Your task to perform on an android device: Go to Google Image 0: 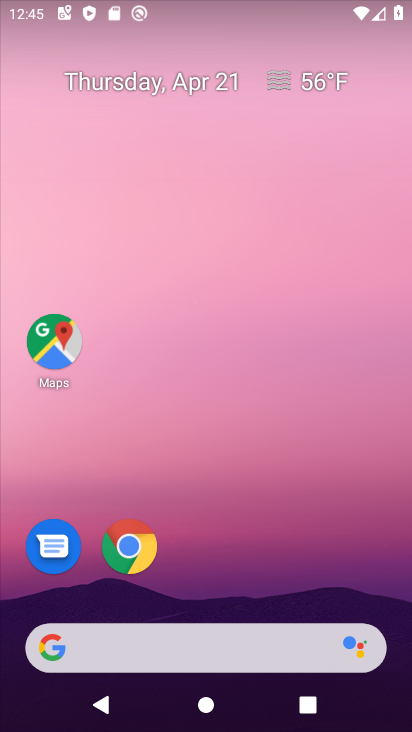
Step 0: drag from (192, 638) to (303, 193)
Your task to perform on an android device: Go to Google Image 1: 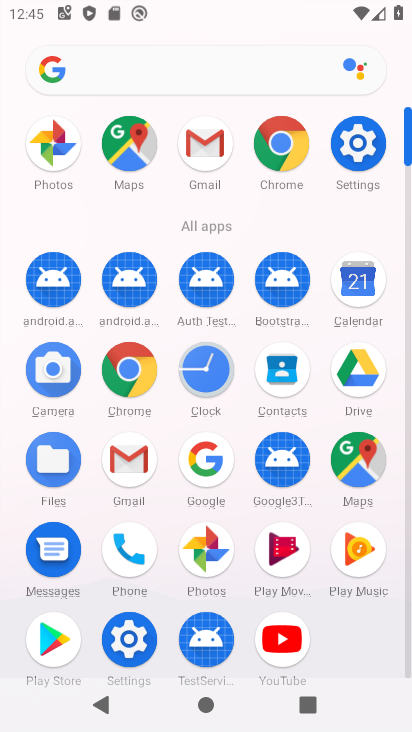
Step 1: click (208, 471)
Your task to perform on an android device: Go to Google Image 2: 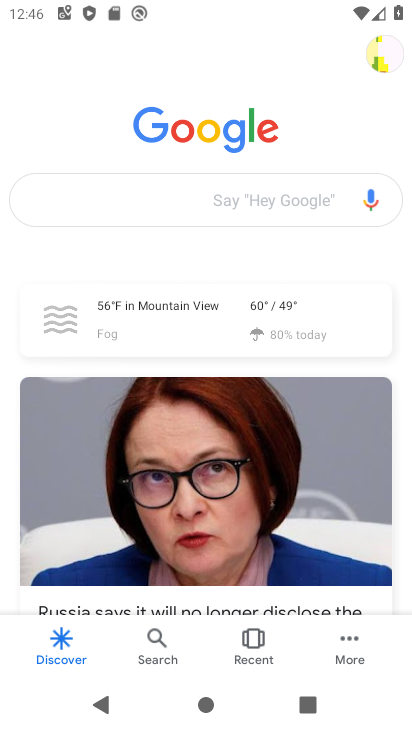
Step 2: task complete